Your task to perform on an android device: Open Chrome and go to settings Image 0: 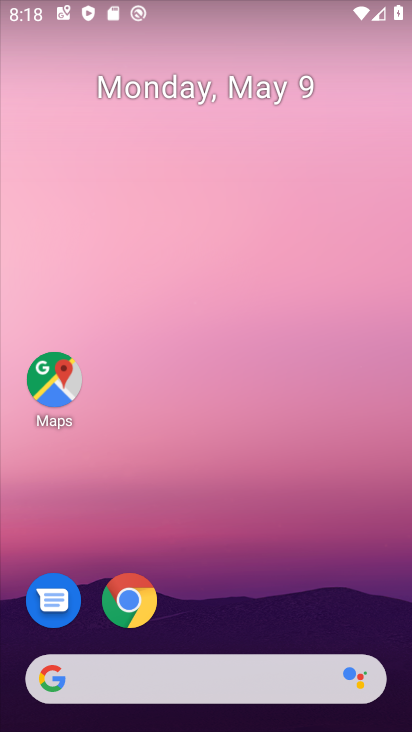
Step 0: drag from (235, 569) to (212, 11)
Your task to perform on an android device: Open Chrome and go to settings Image 1: 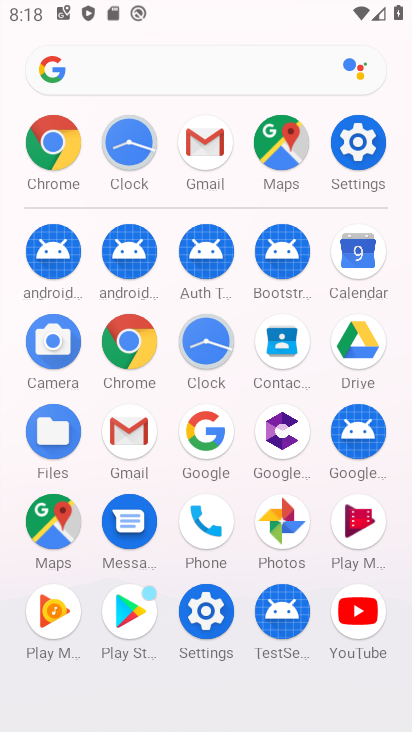
Step 1: drag from (9, 600) to (7, 280)
Your task to perform on an android device: Open Chrome and go to settings Image 2: 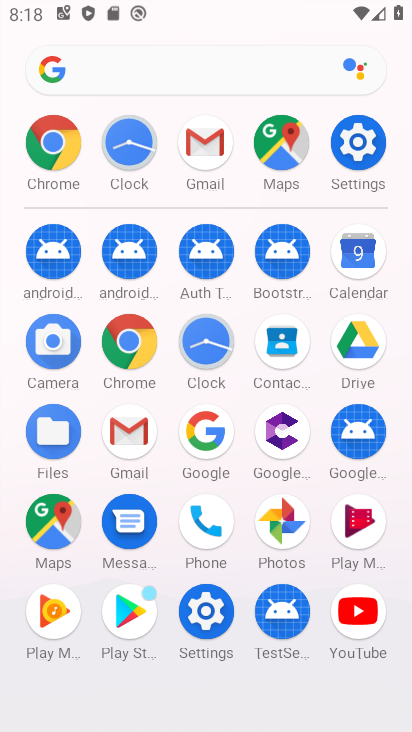
Step 2: click (127, 336)
Your task to perform on an android device: Open Chrome and go to settings Image 3: 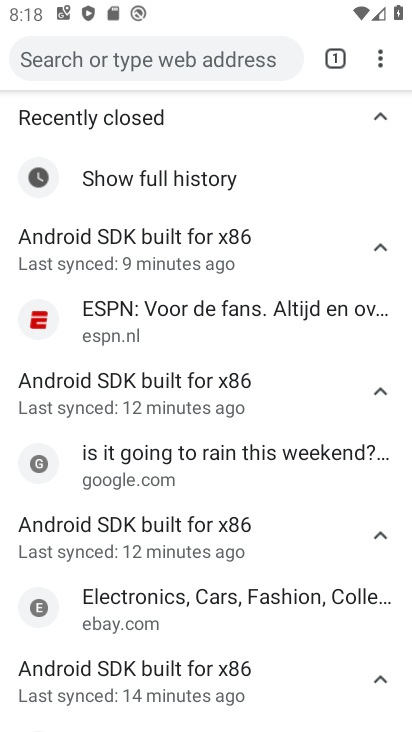
Step 3: task complete